Your task to perform on an android device: Search for flights from London to Paris Image 0: 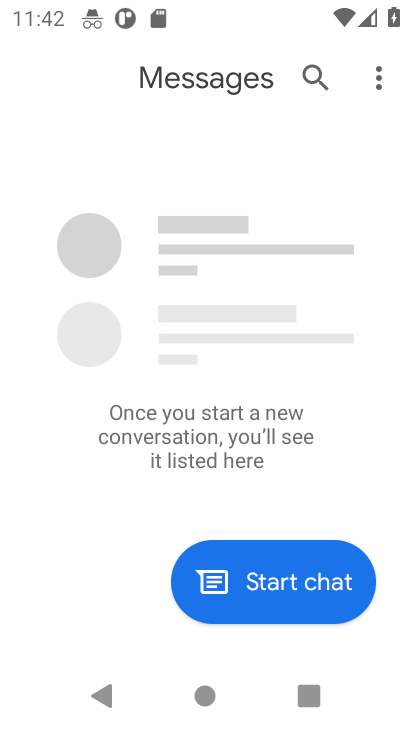
Step 0: press home button
Your task to perform on an android device: Search for flights from London to Paris Image 1: 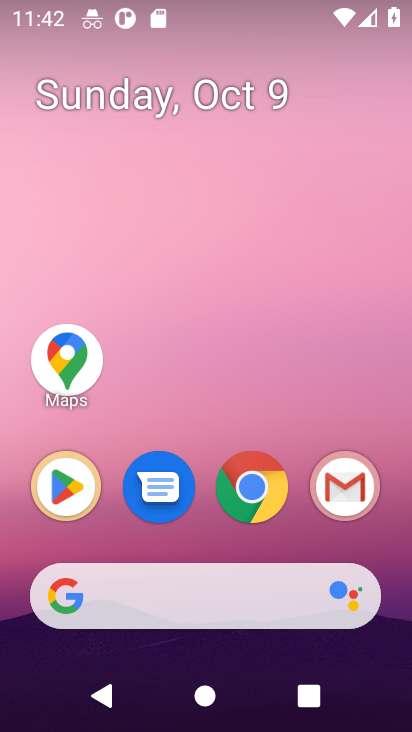
Step 1: click (242, 491)
Your task to perform on an android device: Search for flights from London to Paris Image 2: 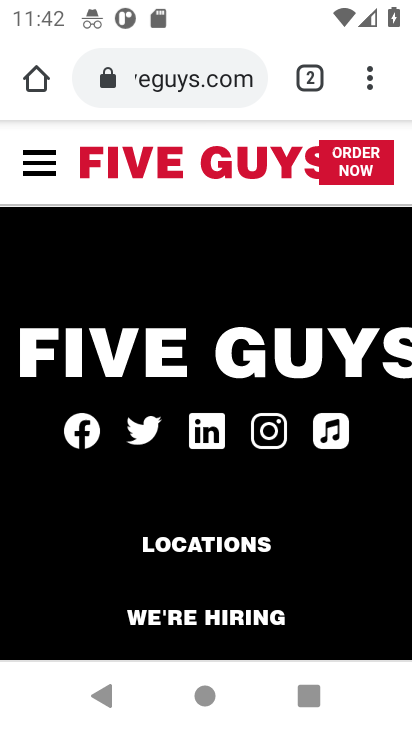
Step 2: click (183, 77)
Your task to perform on an android device: Search for flights from London to Paris Image 3: 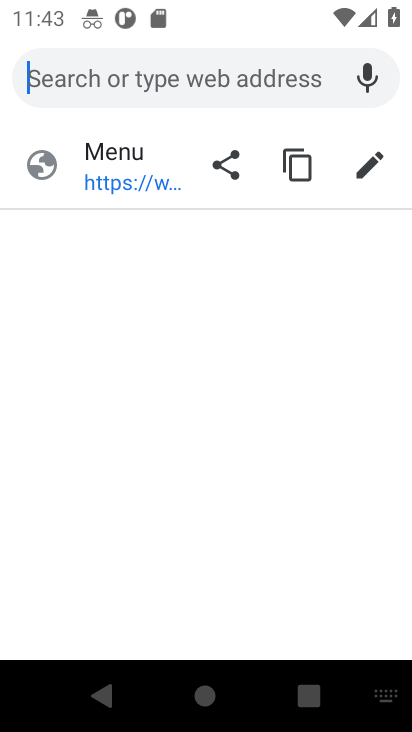
Step 3: type "flights from london to paris"
Your task to perform on an android device: Search for flights from London to Paris Image 4: 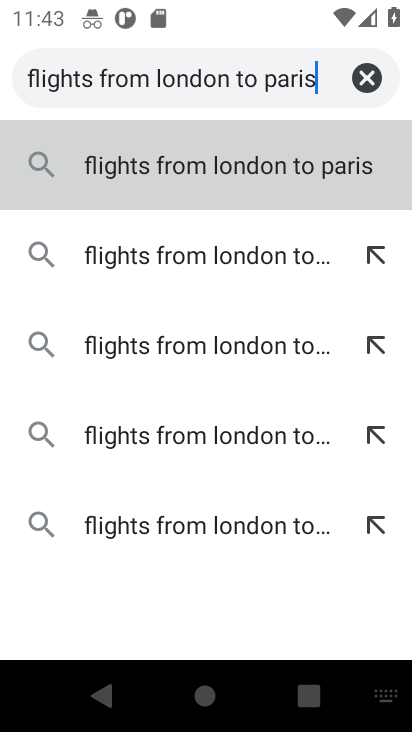
Step 4: type ""
Your task to perform on an android device: Search for flights from London to Paris Image 5: 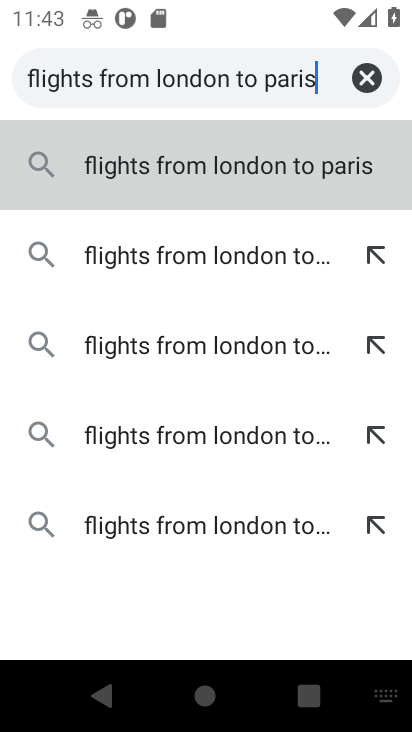
Step 5: press enter
Your task to perform on an android device: Search for flights from London to Paris Image 6: 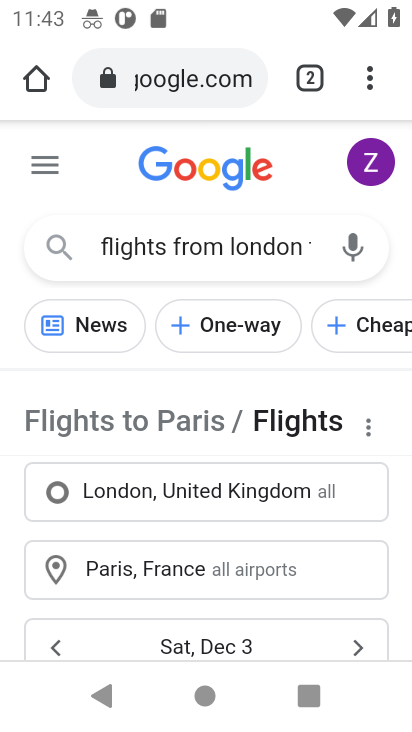
Step 6: drag from (285, 553) to (259, 238)
Your task to perform on an android device: Search for flights from London to Paris Image 7: 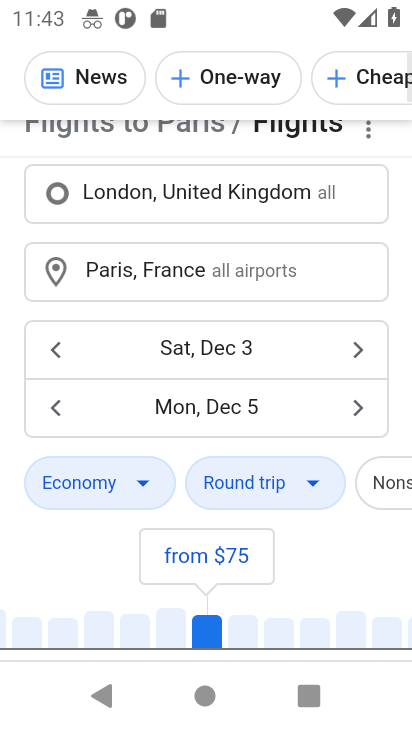
Step 7: drag from (252, 584) to (246, 253)
Your task to perform on an android device: Search for flights from London to Paris Image 8: 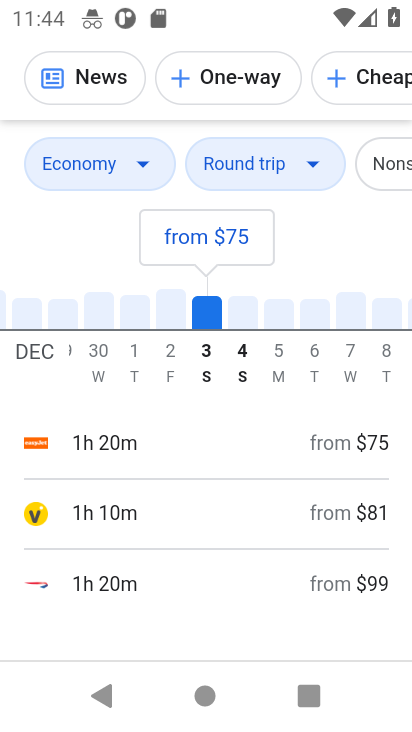
Step 8: drag from (247, 596) to (244, 316)
Your task to perform on an android device: Search for flights from London to Paris Image 9: 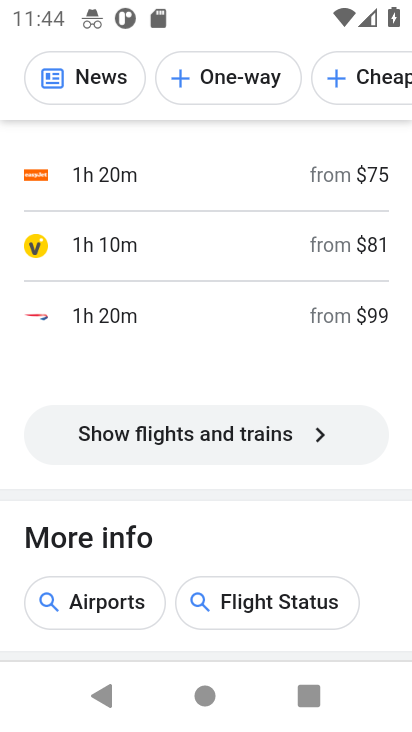
Step 9: click (222, 428)
Your task to perform on an android device: Search for flights from London to Paris Image 10: 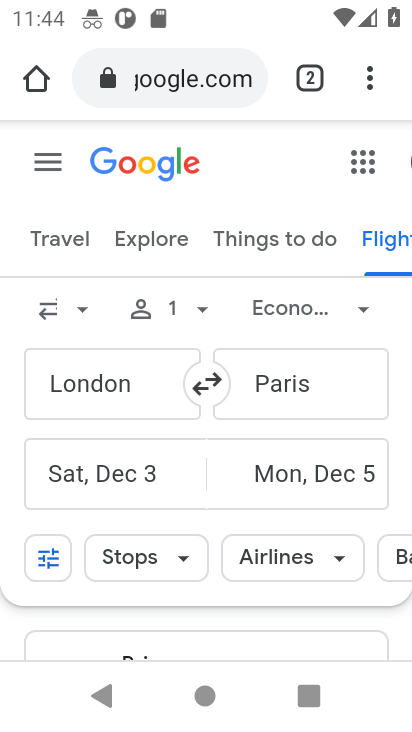
Step 10: task complete